Your task to perform on an android device: Open the stopwatch Image 0: 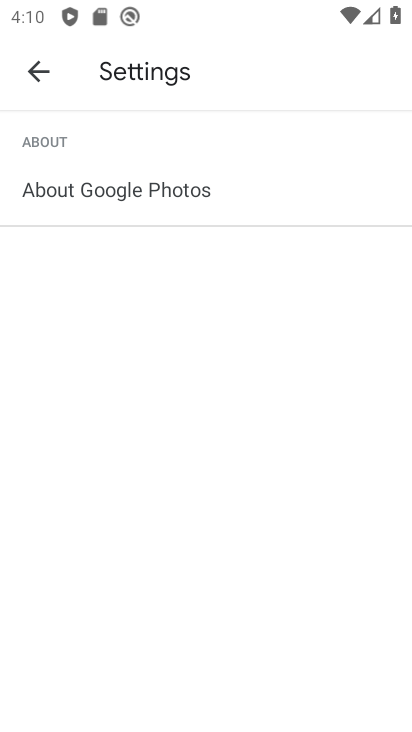
Step 0: press home button
Your task to perform on an android device: Open the stopwatch Image 1: 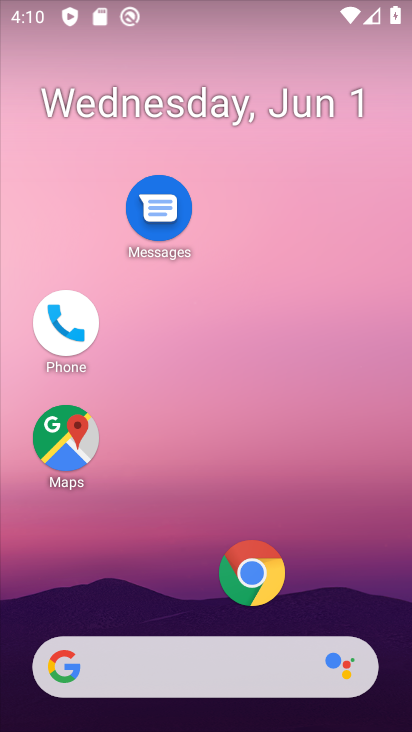
Step 1: drag from (166, 593) to (271, 136)
Your task to perform on an android device: Open the stopwatch Image 2: 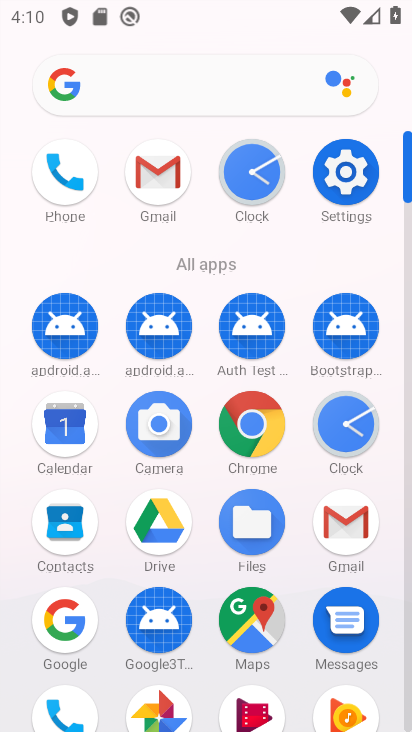
Step 2: click (341, 428)
Your task to perform on an android device: Open the stopwatch Image 3: 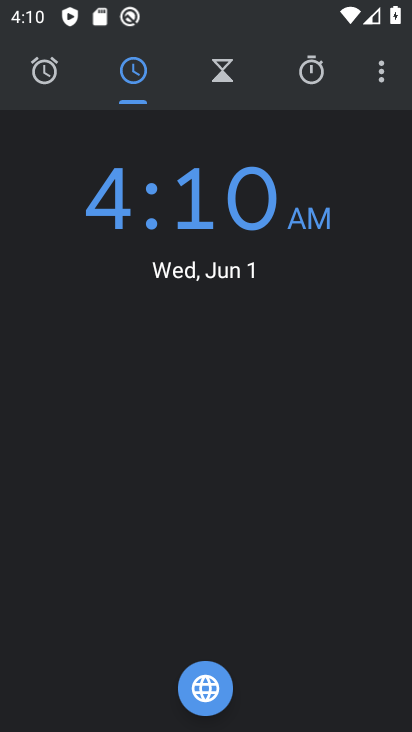
Step 3: click (332, 79)
Your task to perform on an android device: Open the stopwatch Image 4: 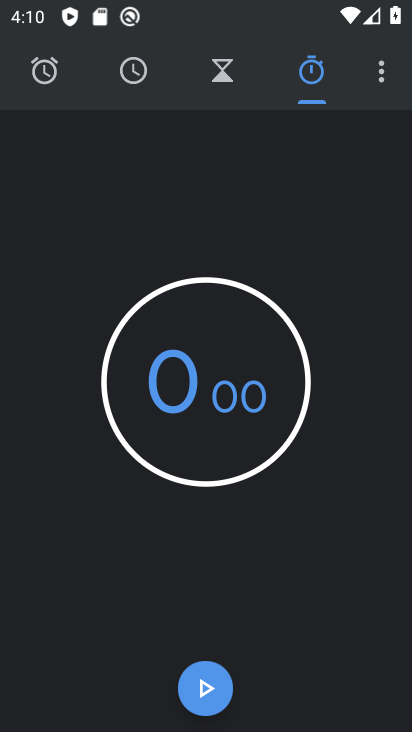
Step 4: click (211, 682)
Your task to perform on an android device: Open the stopwatch Image 5: 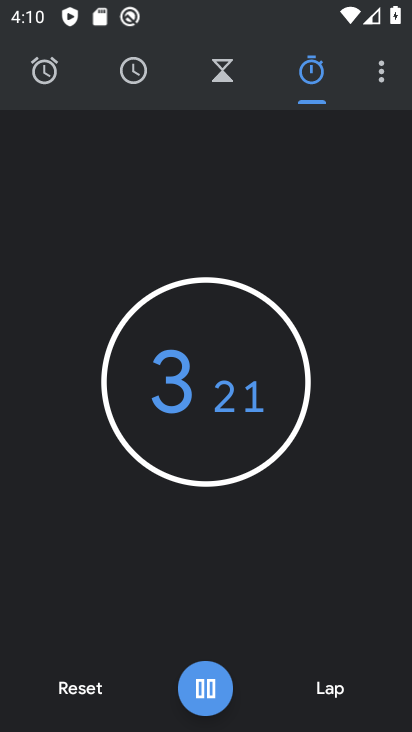
Step 5: task complete